Your task to perform on an android device: Go to eBay Image 0: 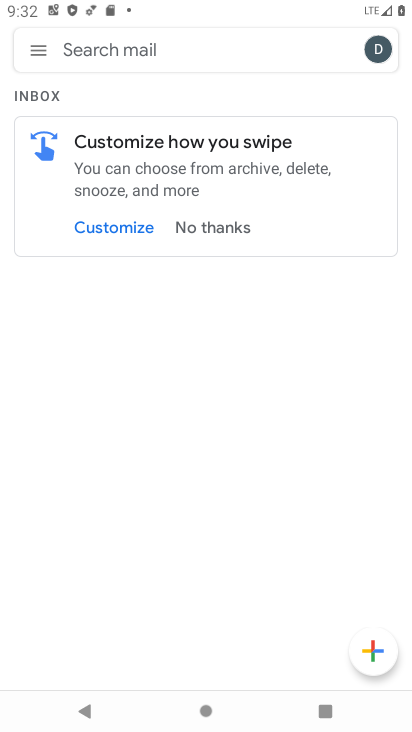
Step 0: press home button
Your task to perform on an android device: Go to eBay Image 1: 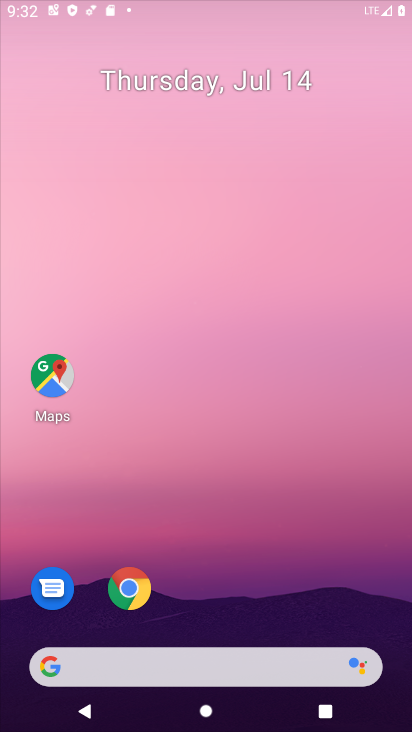
Step 1: drag from (376, 657) to (23, 351)
Your task to perform on an android device: Go to eBay Image 2: 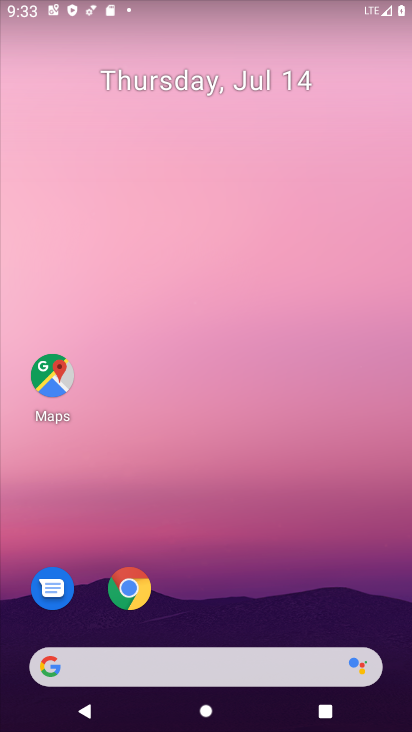
Step 2: drag from (386, 630) to (269, 73)
Your task to perform on an android device: Go to eBay Image 3: 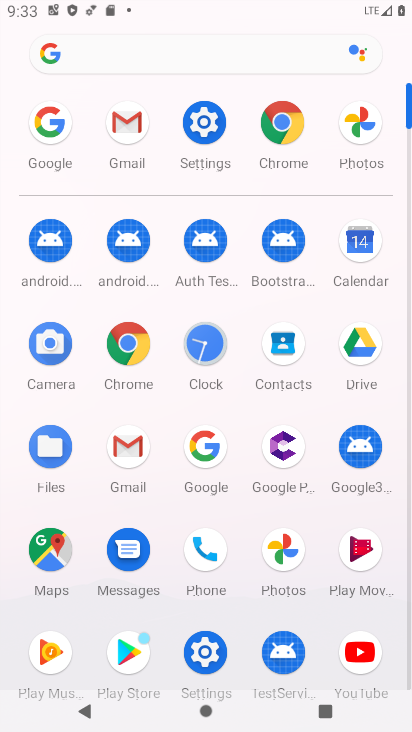
Step 3: click (213, 426)
Your task to perform on an android device: Go to eBay Image 4: 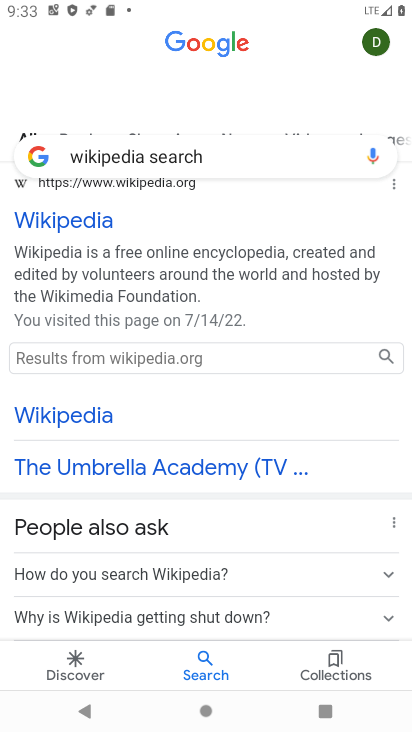
Step 4: press back button
Your task to perform on an android device: Go to eBay Image 5: 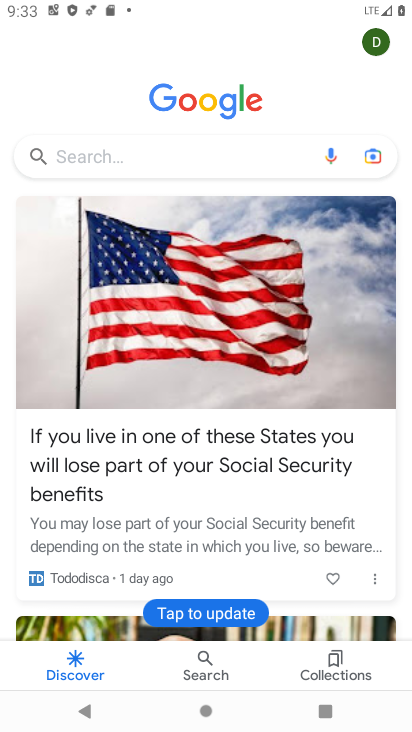
Step 5: click (92, 155)
Your task to perform on an android device: Go to eBay Image 6: 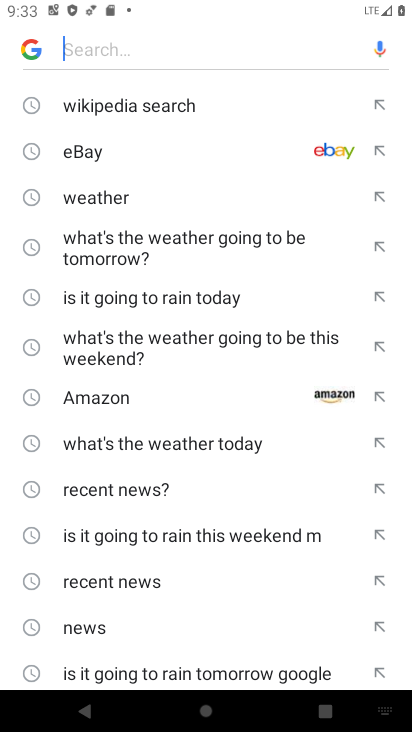
Step 6: click (92, 156)
Your task to perform on an android device: Go to eBay Image 7: 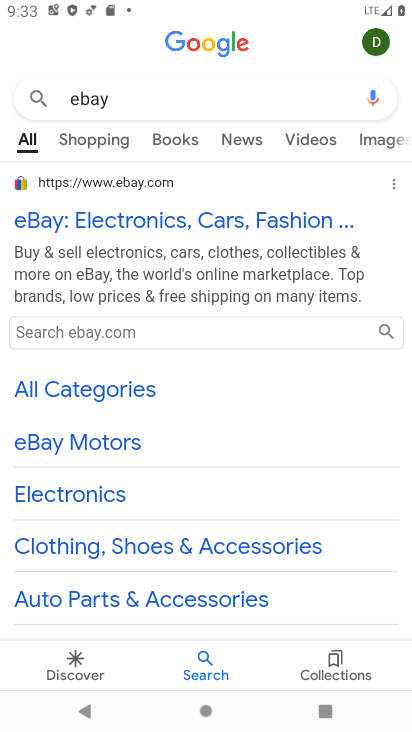
Step 7: task complete